Your task to perform on an android device: What's the weather today? Image 0: 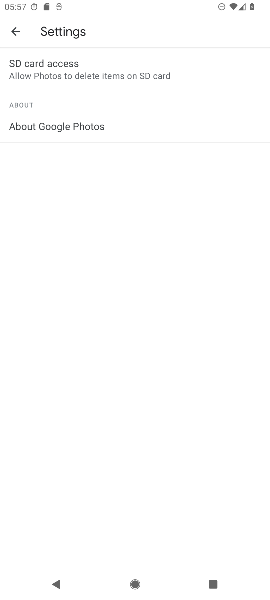
Step 0: press home button
Your task to perform on an android device: What's the weather today? Image 1: 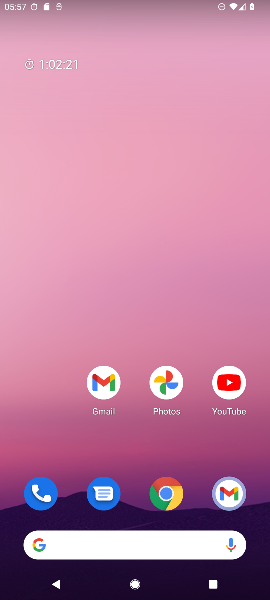
Step 1: click (132, 543)
Your task to perform on an android device: What's the weather today? Image 2: 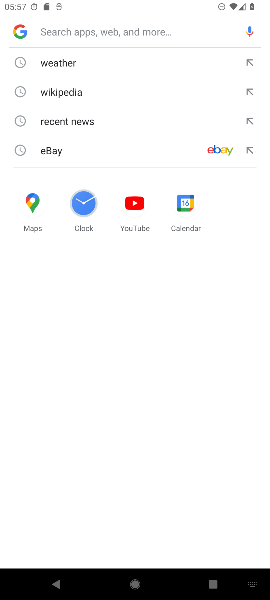
Step 2: click (68, 62)
Your task to perform on an android device: What's the weather today? Image 3: 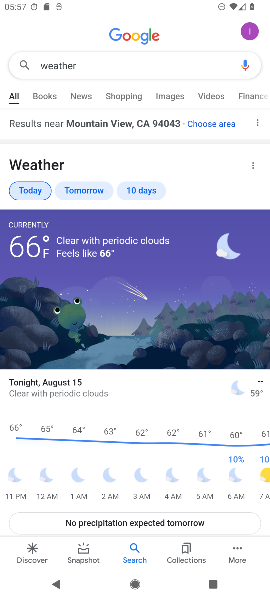
Step 3: task complete